Your task to perform on an android device: turn on data saver in the chrome app Image 0: 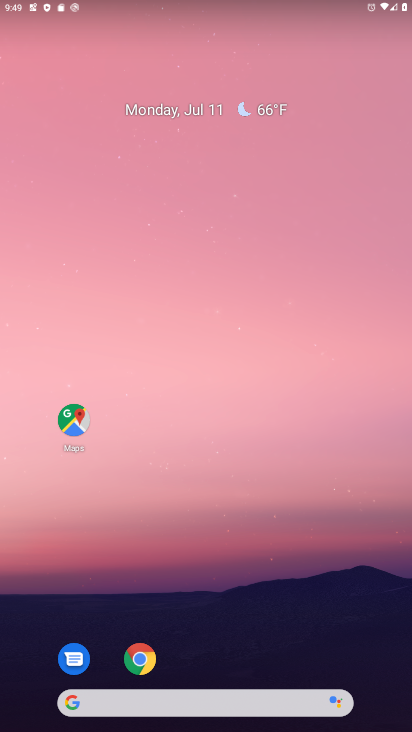
Step 0: drag from (362, 633) to (340, 178)
Your task to perform on an android device: turn on data saver in the chrome app Image 1: 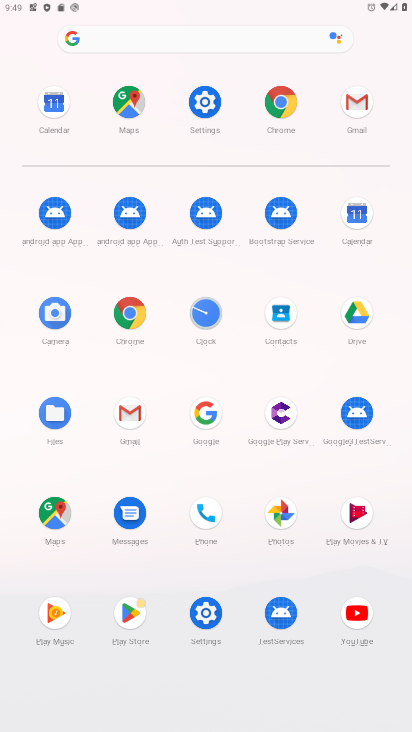
Step 1: click (140, 312)
Your task to perform on an android device: turn on data saver in the chrome app Image 2: 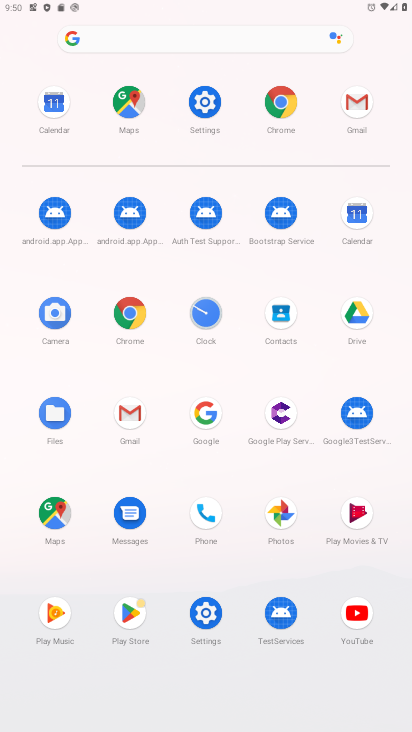
Step 2: click (138, 320)
Your task to perform on an android device: turn on data saver in the chrome app Image 3: 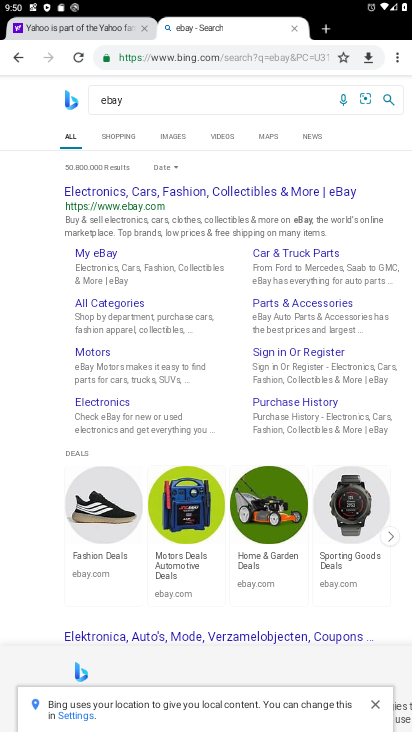
Step 3: click (397, 57)
Your task to perform on an android device: turn on data saver in the chrome app Image 4: 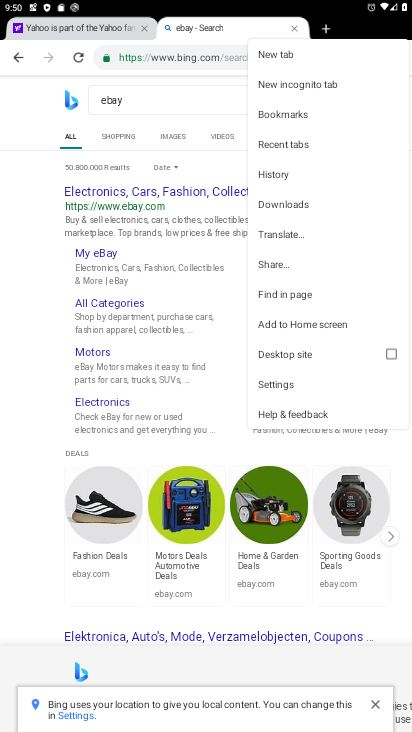
Step 4: click (305, 391)
Your task to perform on an android device: turn on data saver in the chrome app Image 5: 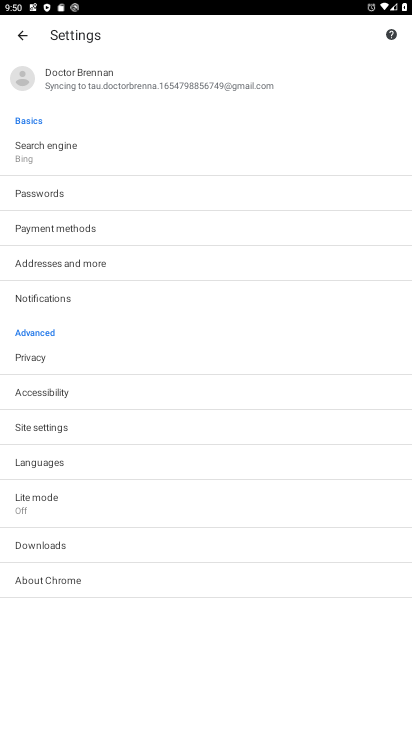
Step 5: click (78, 500)
Your task to perform on an android device: turn on data saver in the chrome app Image 6: 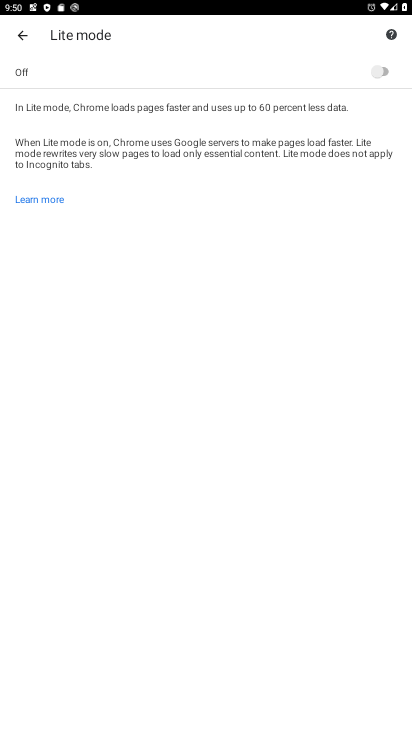
Step 6: click (381, 70)
Your task to perform on an android device: turn on data saver in the chrome app Image 7: 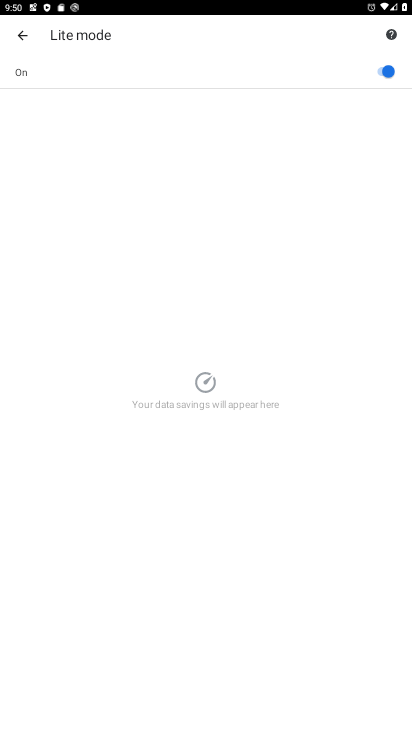
Step 7: task complete